Your task to perform on an android device: Empty the shopping cart on ebay. Add "corsair k70" to the cart on ebay, then select checkout. Image 0: 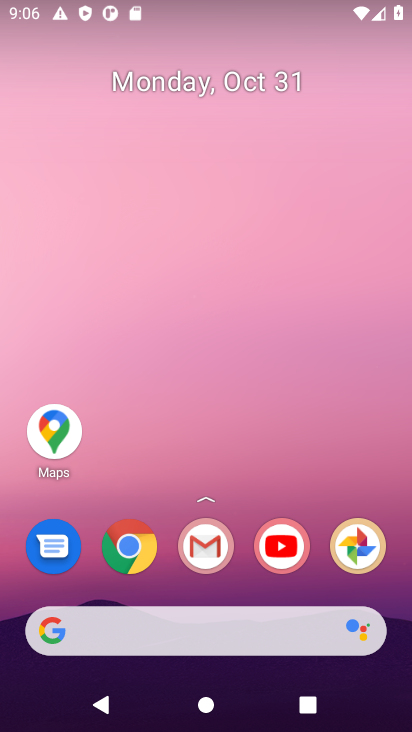
Step 0: click (138, 554)
Your task to perform on an android device: Empty the shopping cart on ebay. Add "corsair k70" to the cart on ebay, then select checkout. Image 1: 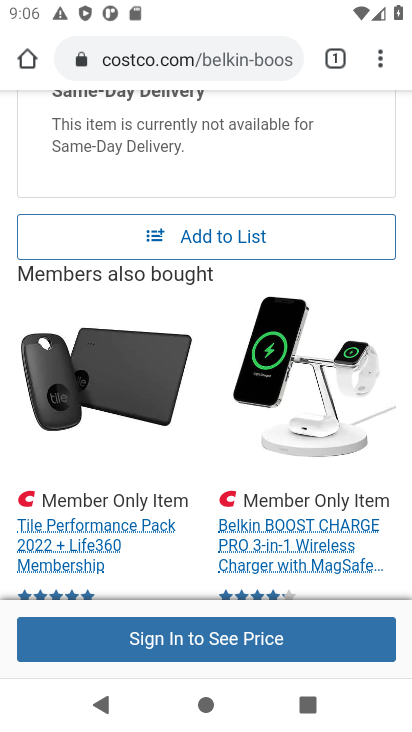
Step 1: click (217, 65)
Your task to perform on an android device: Empty the shopping cart on ebay. Add "corsair k70" to the cart on ebay, then select checkout. Image 2: 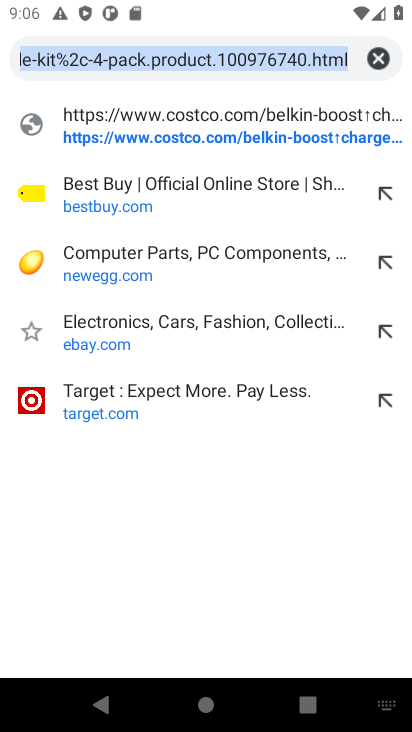
Step 2: click (381, 64)
Your task to perform on an android device: Empty the shopping cart on ebay. Add "corsair k70" to the cart on ebay, then select checkout. Image 3: 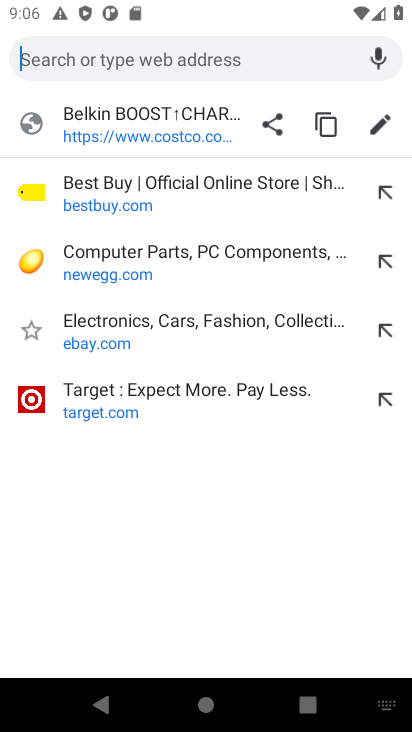
Step 3: type "ebay.com"
Your task to perform on an android device: Empty the shopping cart on ebay. Add "corsair k70" to the cart on ebay, then select checkout. Image 4: 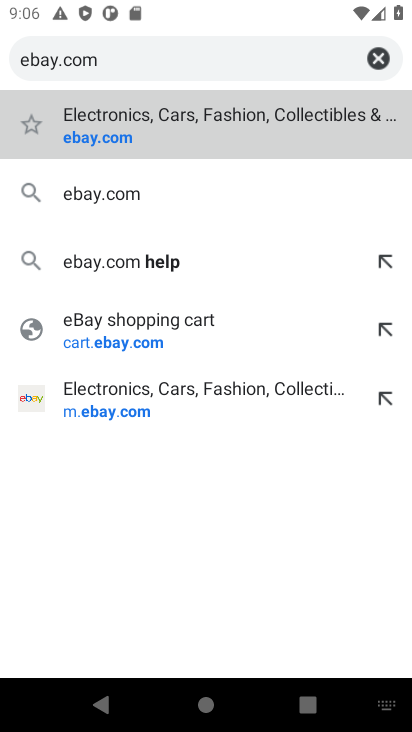
Step 4: press enter
Your task to perform on an android device: Empty the shopping cart on ebay. Add "corsair k70" to the cart on ebay, then select checkout. Image 5: 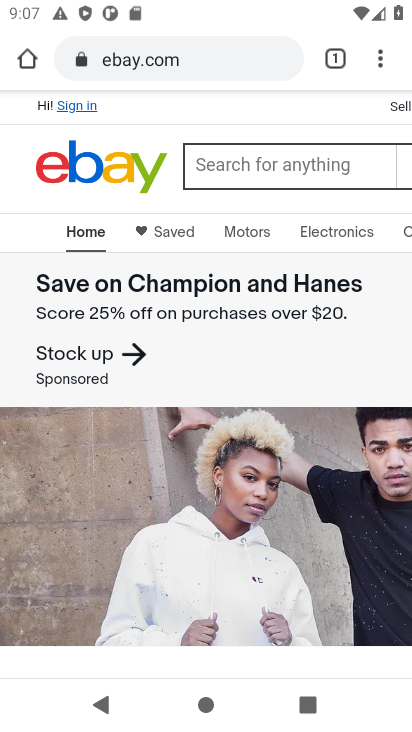
Step 5: click (285, 177)
Your task to perform on an android device: Empty the shopping cart on ebay. Add "corsair k70" to the cart on ebay, then select checkout. Image 6: 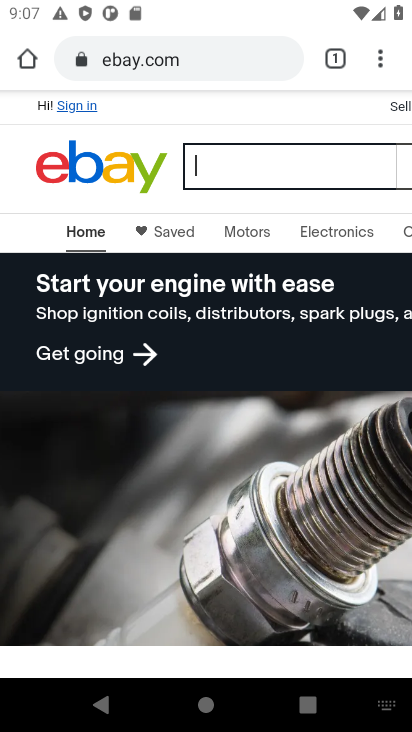
Step 6: type "corsair k70"
Your task to perform on an android device: Empty the shopping cart on ebay. Add "corsair k70" to the cart on ebay, then select checkout. Image 7: 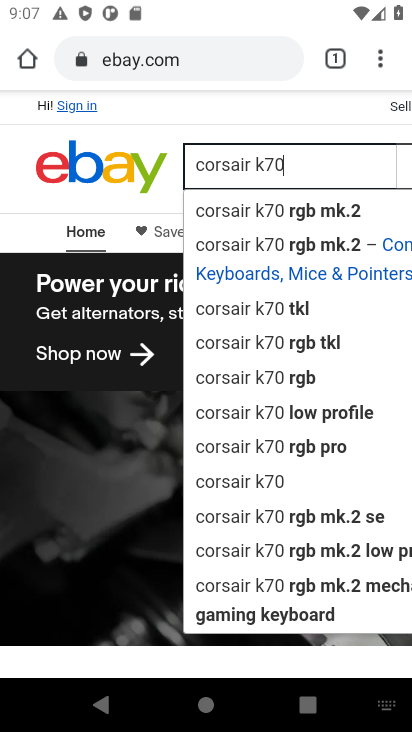
Step 7: press enter
Your task to perform on an android device: Empty the shopping cart on ebay. Add "corsair k70" to the cart on ebay, then select checkout. Image 8: 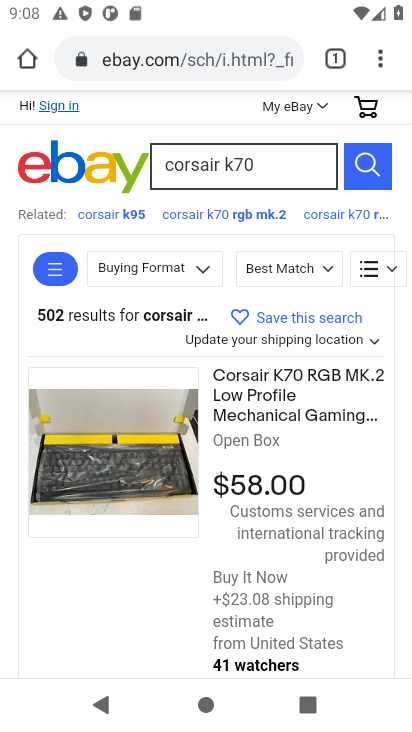
Step 8: drag from (214, 521) to (228, 360)
Your task to perform on an android device: Empty the shopping cart on ebay. Add "corsair k70" to the cart on ebay, then select checkout. Image 9: 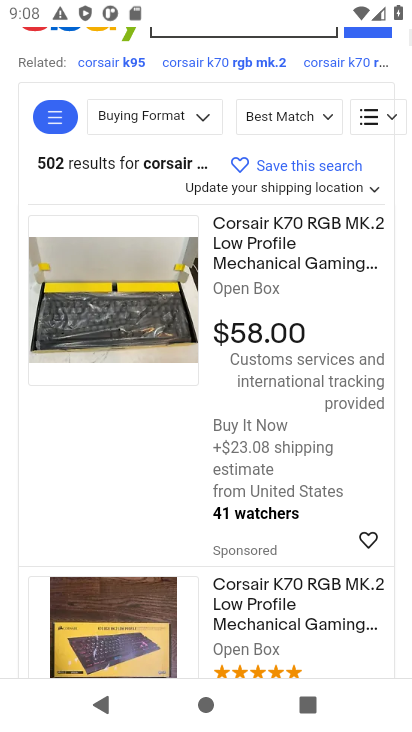
Step 9: click (110, 320)
Your task to perform on an android device: Empty the shopping cart on ebay. Add "corsair k70" to the cart on ebay, then select checkout. Image 10: 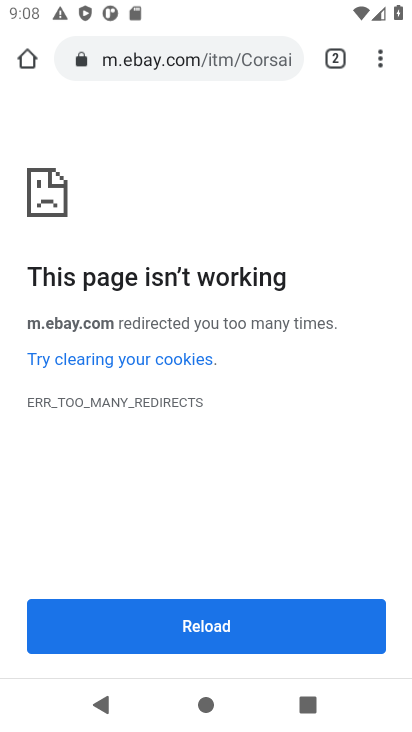
Step 10: task complete